Your task to perform on an android device: turn notification dots off Image 0: 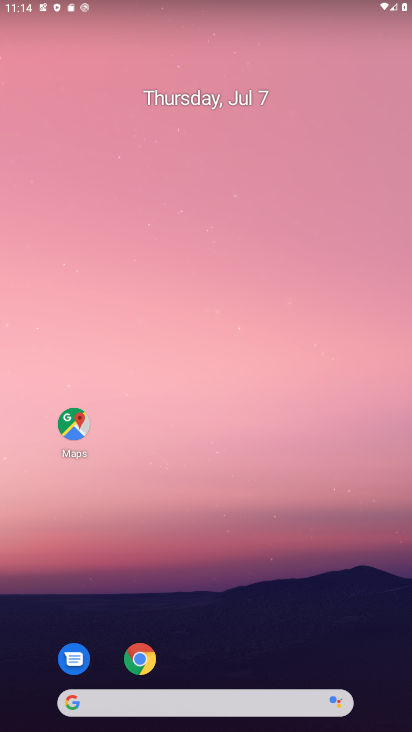
Step 0: drag from (216, 662) to (241, 71)
Your task to perform on an android device: turn notification dots off Image 1: 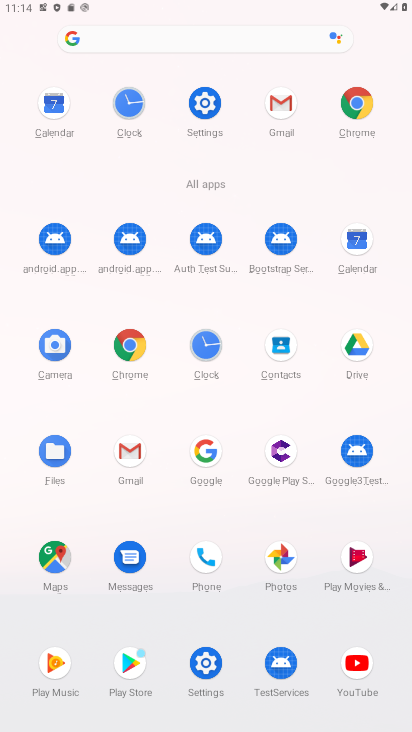
Step 1: click (204, 100)
Your task to perform on an android device: turn notification dots off Image 2: 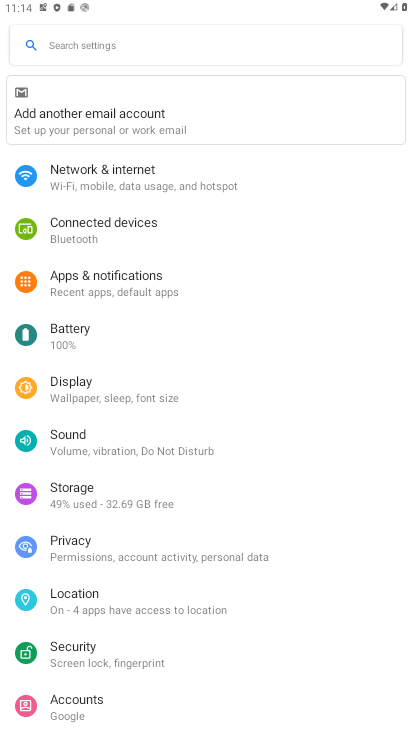
Step 2: click (146, 285)
Your task to perform on an android device: turn notification dots off Image 3: 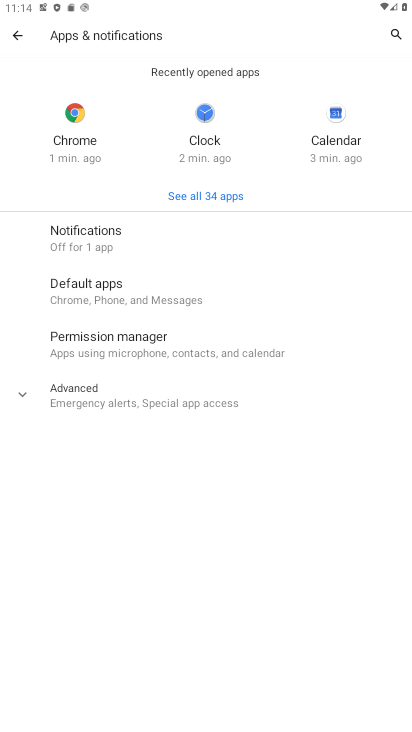
Step 3: click (131, 233)
Your task to perform on an android device: turn notification dots off Image 4: 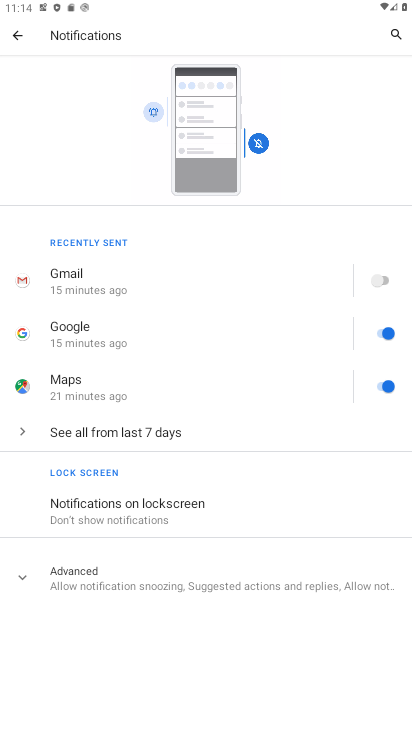
Step 4: click (121, 575)
Your task to perform on an android device: turn notification dots off Image 5: 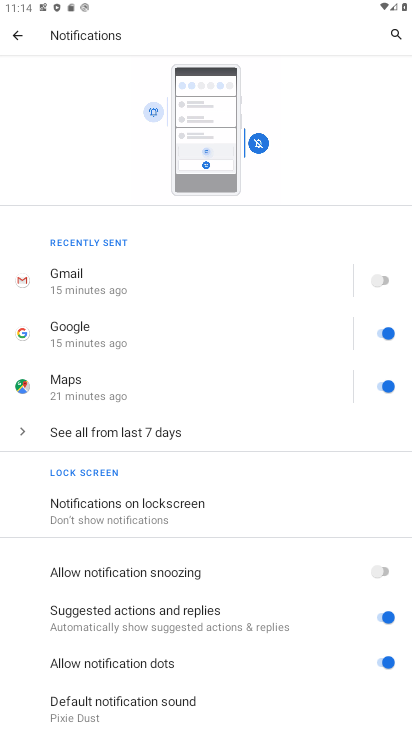
Step 5: click (385, 657)
Your task to perform on an android device: turn notification dots off Image 6: 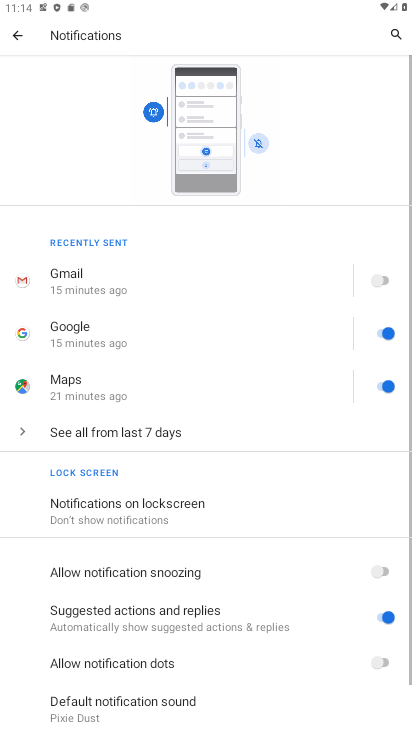
Step 6: task complete